Your task to perform on an android device: Search for Mexican restaurants on Maps Image 0: 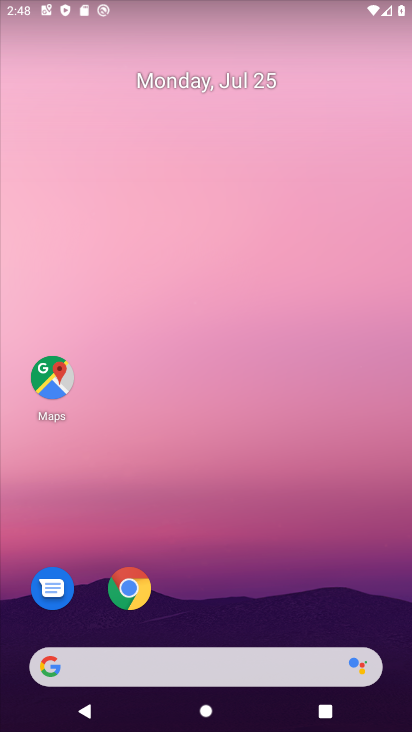
Step 0: click (56, 376)
Your task to perform on an android device: Search for Mexican restaurants on Maps Image 1: 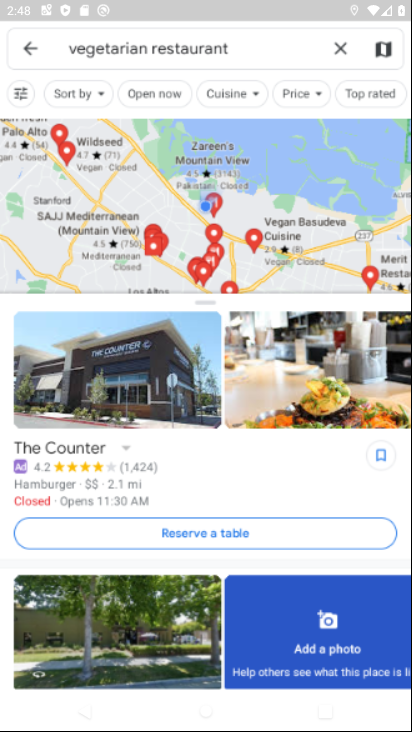
Step 1: click (338, 46)
Your task to perform on an android device: Search for Mexican restaurants on Maps Image 2: 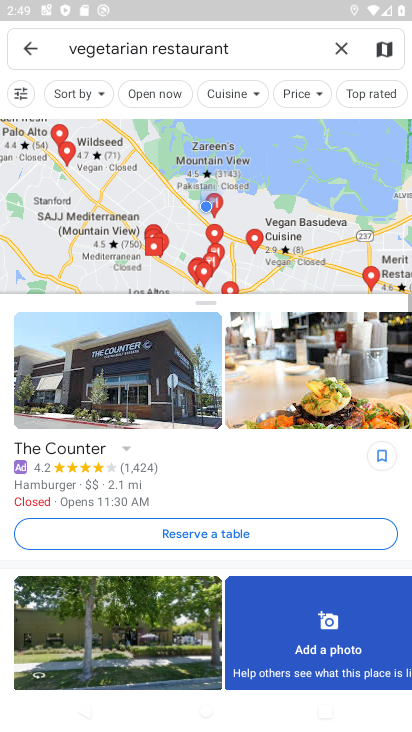
Step 2: click (337, 54)
Your task to perform on an android device: Search for Mexican restaurants on Maps Image 3: 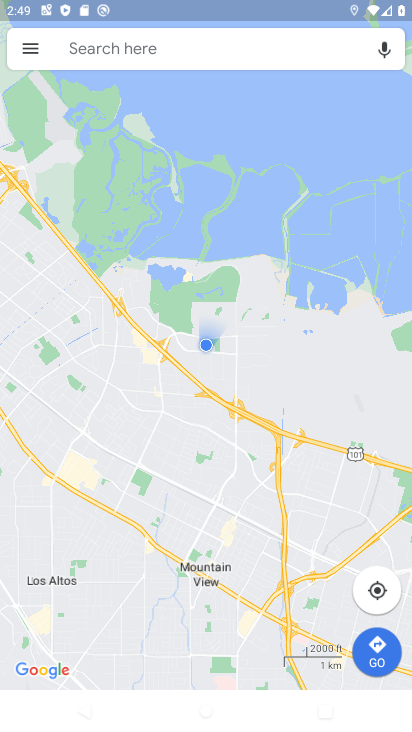
Step 3: click (162, 50)
Your task to perform on an android device: Search for Mexican restaurants on Maps Image 4: 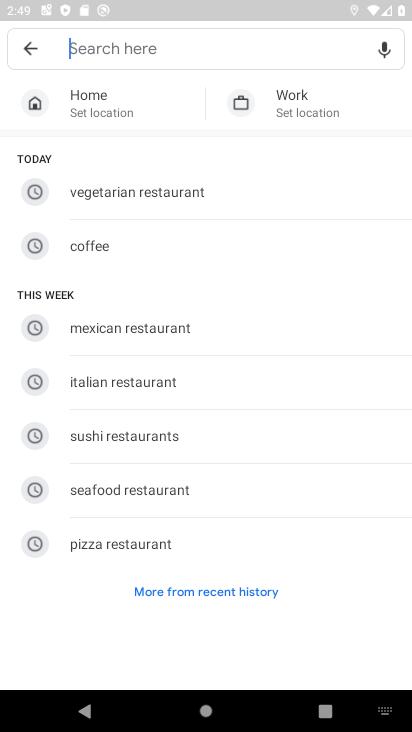
Step 4: click (168, 341)
Your task to perform on an android device: Search for Mexican restaurants on Maps Image 5: 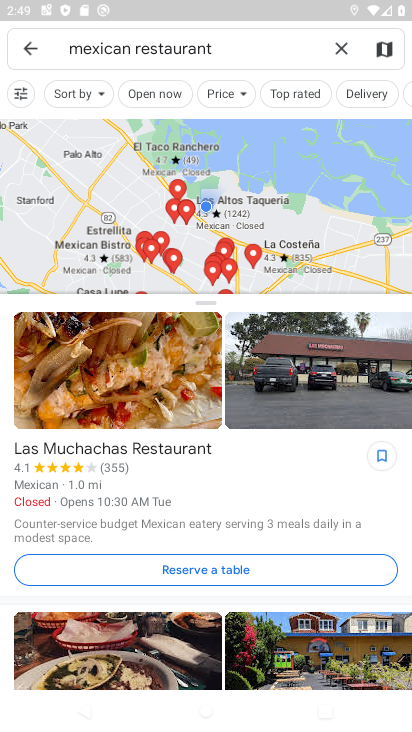
Step 5: task complete